Your task to perform on an android device: turn off priority inbox in the gmail app Image 0: 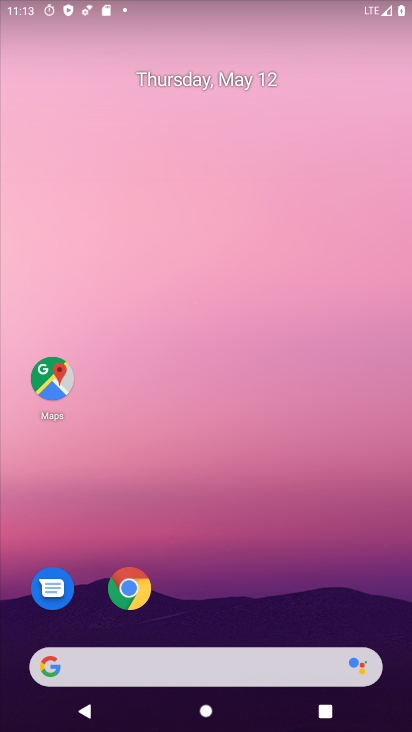
Step 0: drag from (325, 589) to (289, 116)
Your task to perform on an android device: turn off priority inbox in the gmail app Image 1: 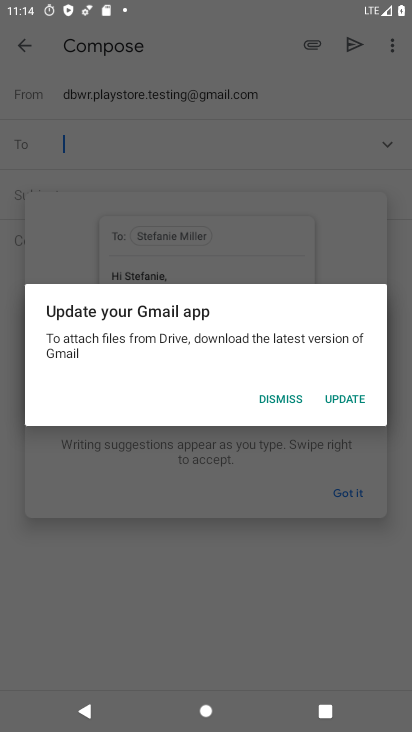
Step 1: press home button
Your task to perform on an android device: turn off priority inbox in the gmail app Image 2: 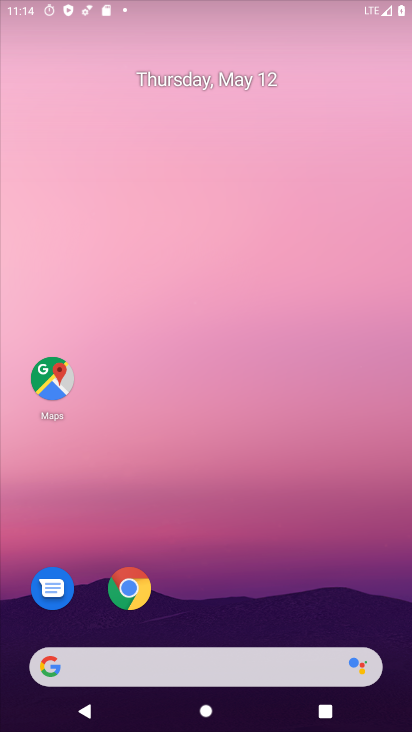
Step 2: drag from (249, 565) to (305, 45)
Your task to perform on an android device: turn off priority inbox in the gmail app Image 3: 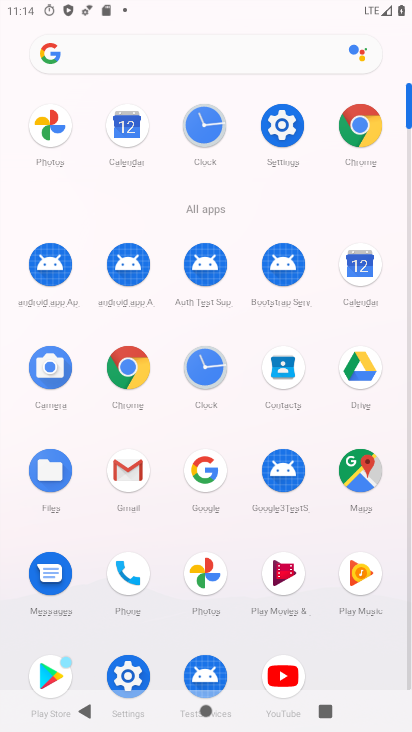
Step 3: click (139, 464)
Your task to perform on an android device: turn off priority inbox in the gmail app Image 4: 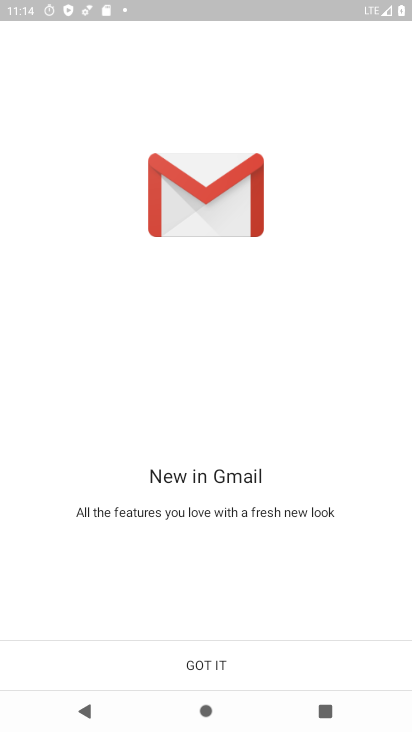
Step 4: click (238, 662)
Your task to perform on an android device: turn off priority inbox in the gmail app Image 5: 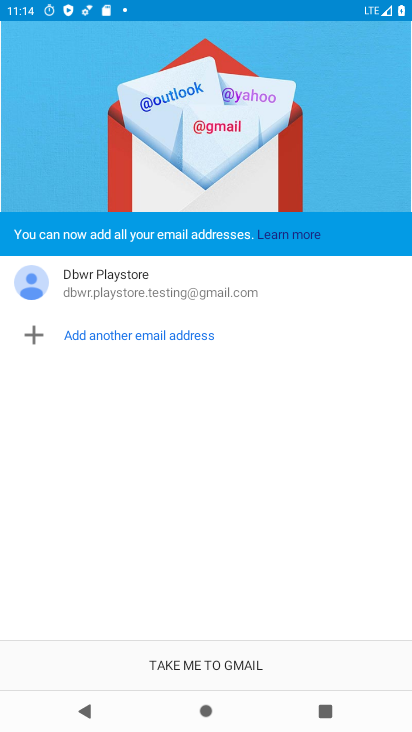
Step 5: click (184, 654)
Your task to perform on an android device: turn off priority inbox in the gmail app Image 6: 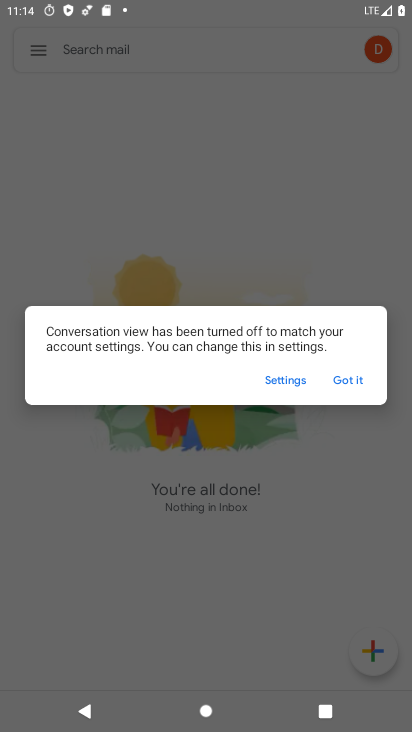
Step 6: click (342, 377)
Your task to perform on an android device: turn off priority inbox in the gmail app Image 7: 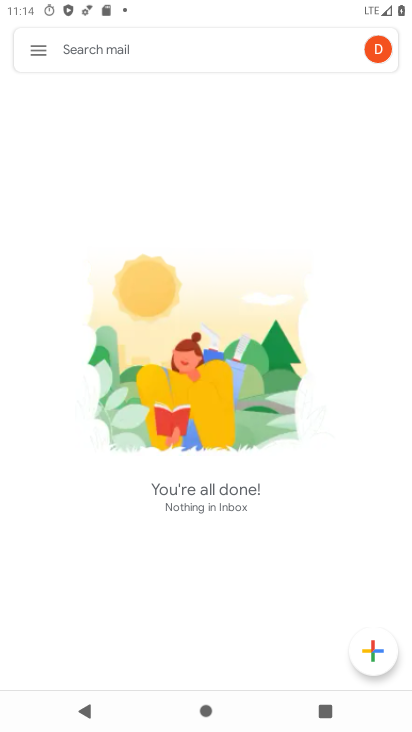
Step 7: click (373, 50)
Your task to perform on an android device: turn off priority inbox in the gmail app Image 8: 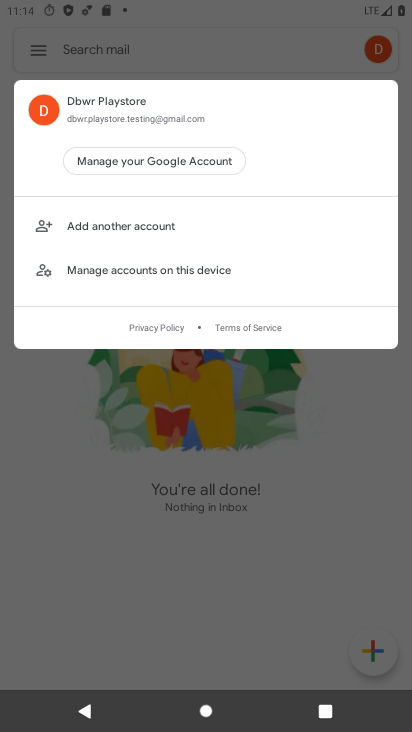
Step 8: click (252, 471)
Your task to perform on an android device: turn off priority inbox in the gmail app Image 9: 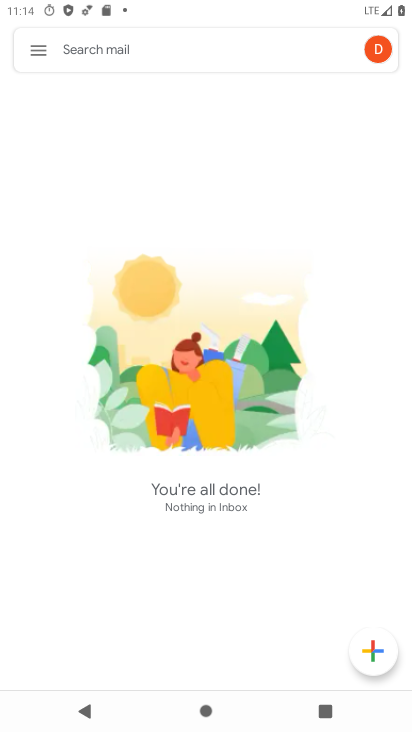
Step 9: click (29, 59)
Your task to perform on an android device: turn off priority inbox in the gmail app Image 10: 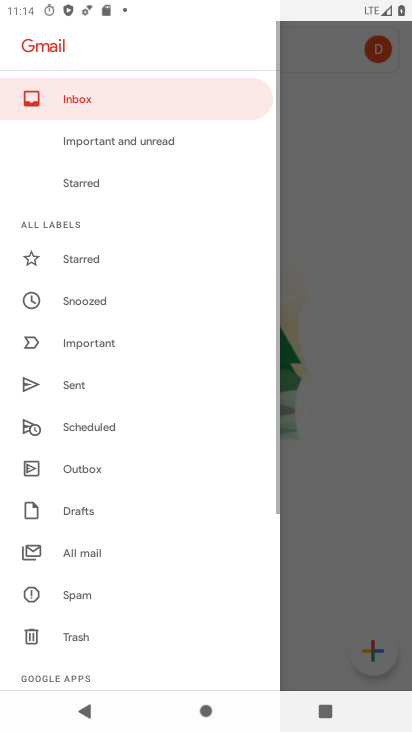
Step 10: drag from (112, 645) to (268, 77)
Your task to perform on an android device: turn off priority inbox in the gmail app Image 11: 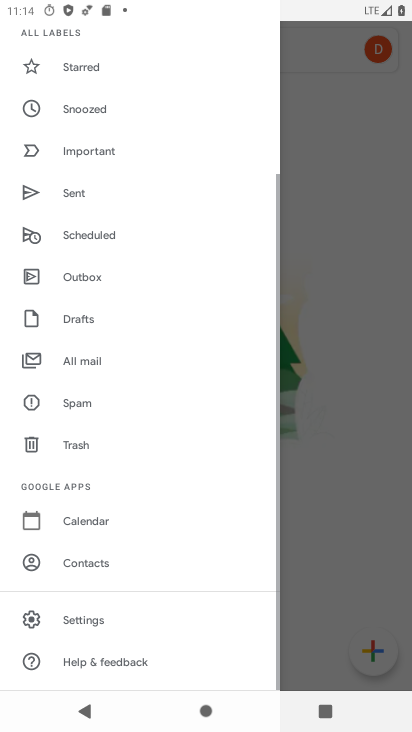
Step 11: click (75, 624)
Your task to perform on an android device: turn off priority inbox in the gmail app Image 12: 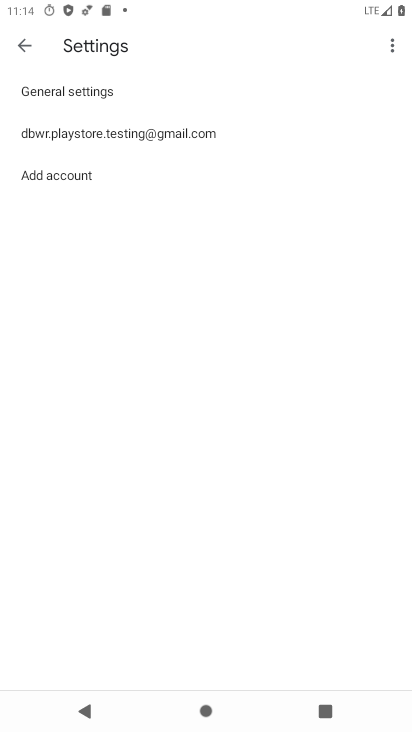
Step 12: click (192, 140)
Your task to perform on an android device: turn off priority inbox in the gmail app Image 13: 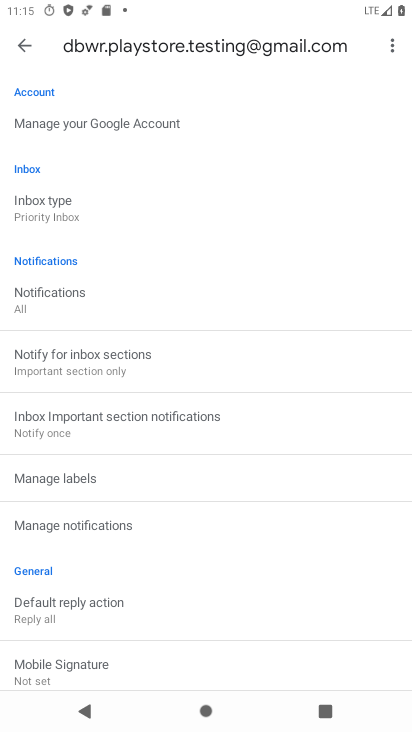
Step 13: click (66, 209)
Your task to perform on an android device: turn off priority inbox in the gmail app Image 14: 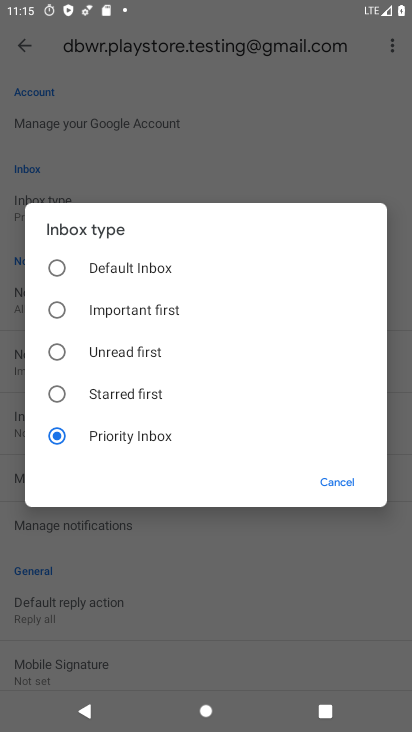
Step 14: task complete